Your task to perform on an android device: Open maps Image 0: 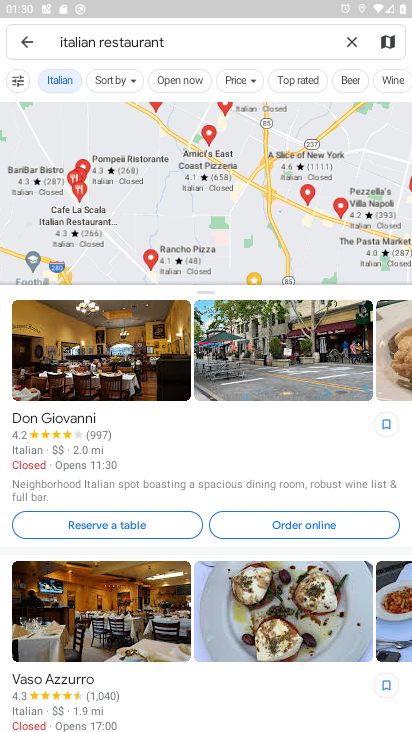
Step 0: press home button
Your task to perform on an android device: Open maps Image 1: 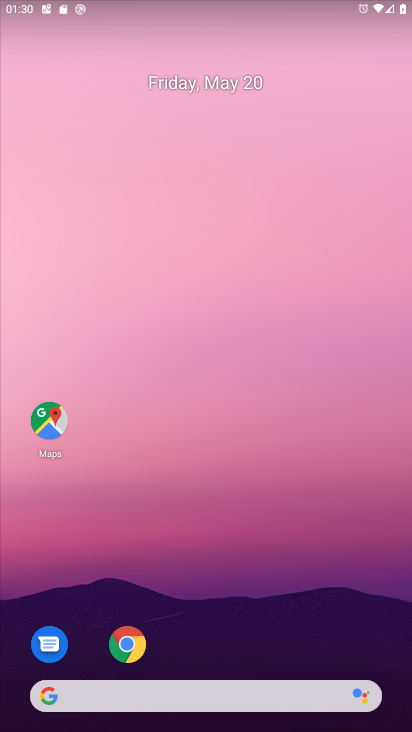
Step 1: click (43, 425)
Your task to perform on an android device: Open maps Image 2: 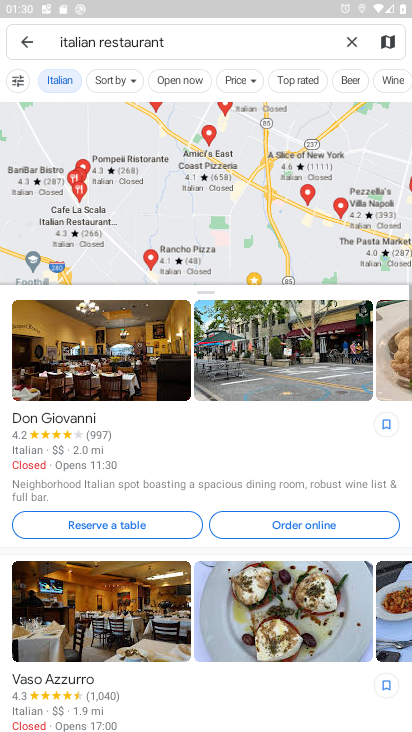
Step 2: click (346, 41)
Your task to perform on an android device: Open maps Image 3: 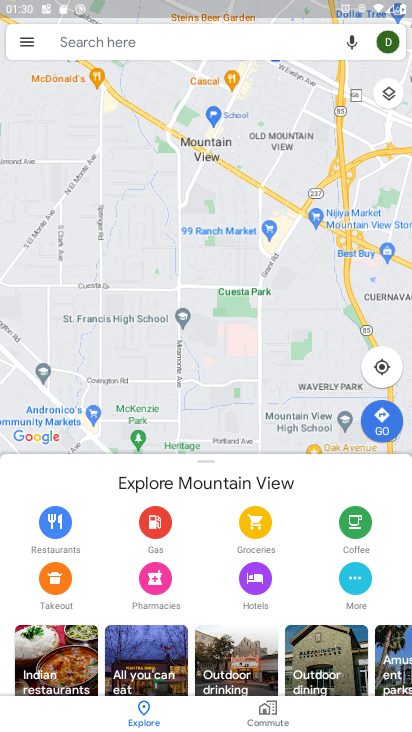
Step 3: task complete